Your task to perform on an android device: Open my contact list Image 0: 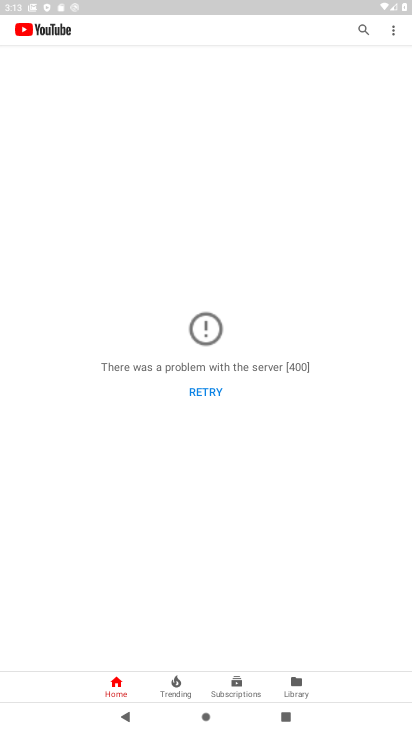
Step 0: press home button
Your task to perform on an android device: Open my contact list Image 1: 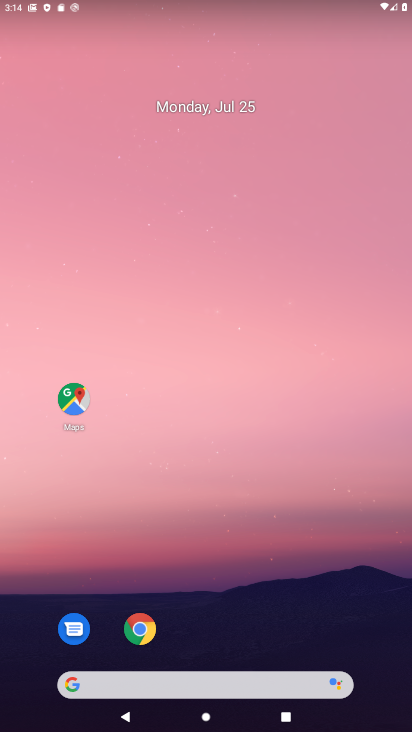
Step 1: drag from (287, 652) to (354, 3)
Your task to perform on an android device: Open my contact list Image 2: 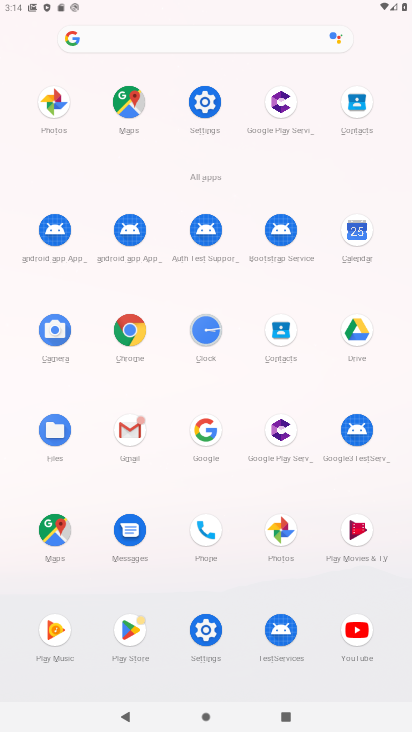
Step 2: click (289, 331)
Your task to perform on an android device: Open my contact list Image 3: 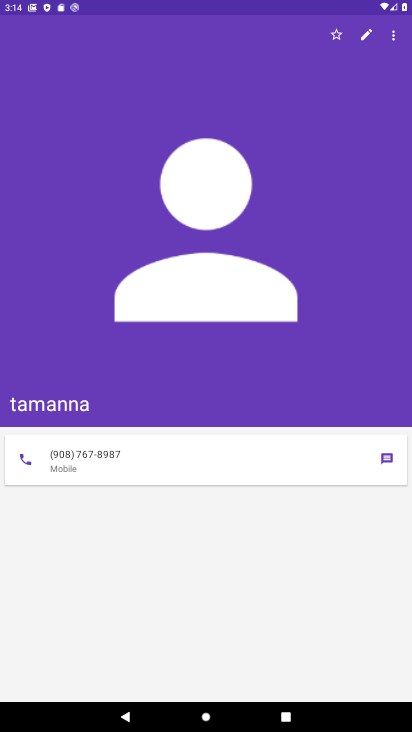
Step 3: press back button
Your task to perform on an android device: Open my contact list Image 4: 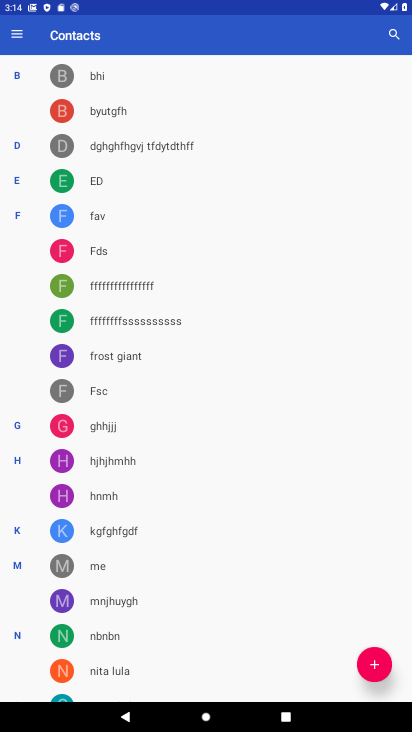
Step 4: click (370, 661)
Your task to perform on an android device: Open my contact list Image 5: 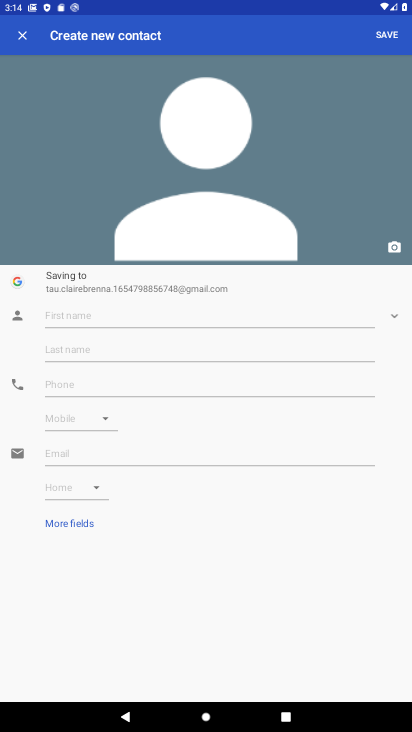
Step 5: type "lily"
Your task to perform on an android device: Open my contact list Image 6: 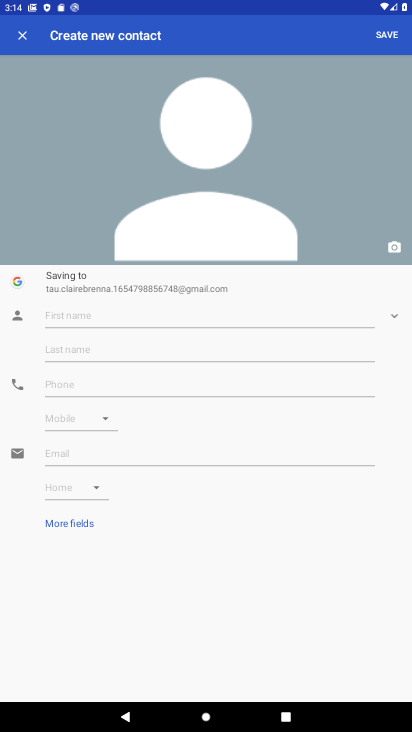
Step 6: click (150, 323)
Your task to perform on an android device: Open my contact list Image 7: 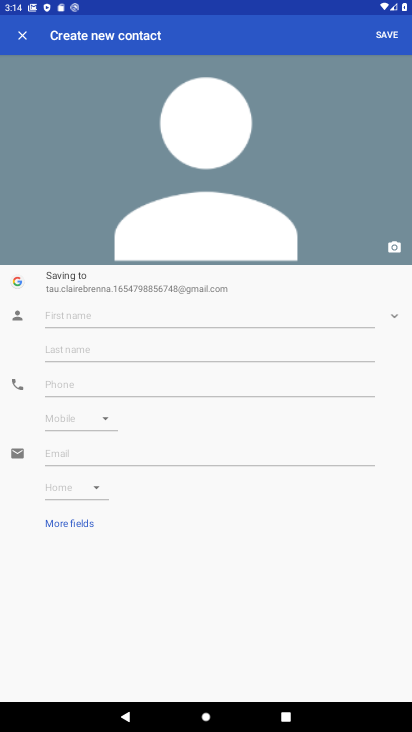
Step 7: click (150, 330)
Your task to perform on an android device: Open my contact list Image 8: 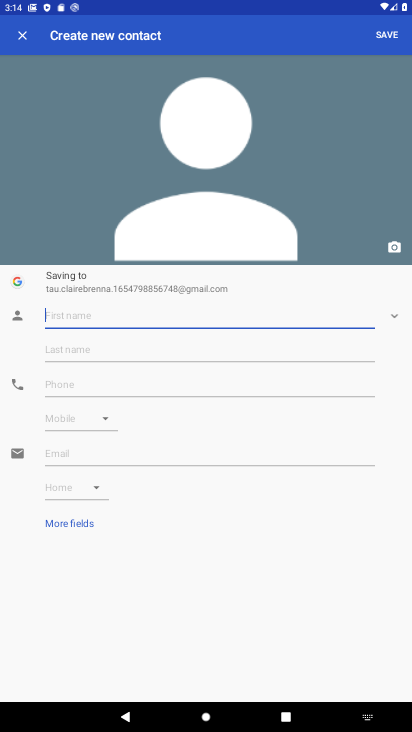
Step 8: type "lily'"
Your task to perform on an android device: Open my contact list Image 9: 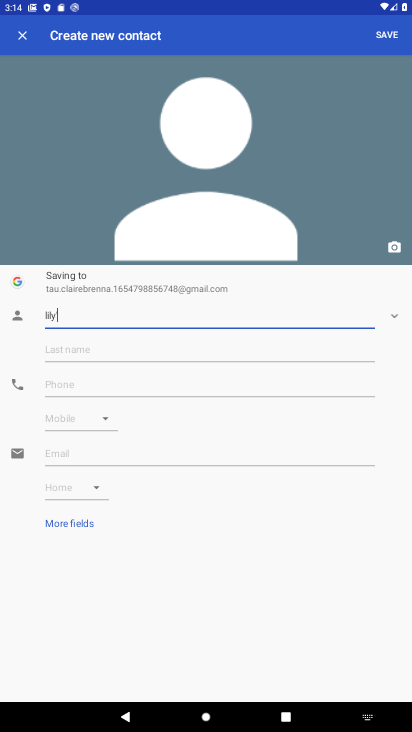
Step 9: click (142, 383)
Your task to perform on an android device: Open my contact list Image 10: 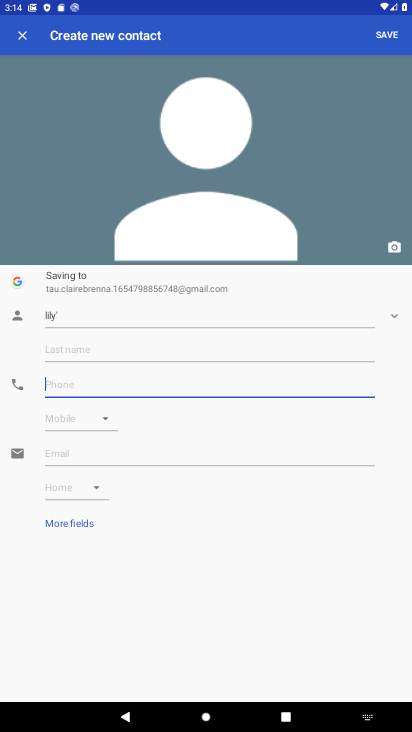
Step 10: type "9897908070"
Your task to perform on an android device: Open my contact list Image 11: 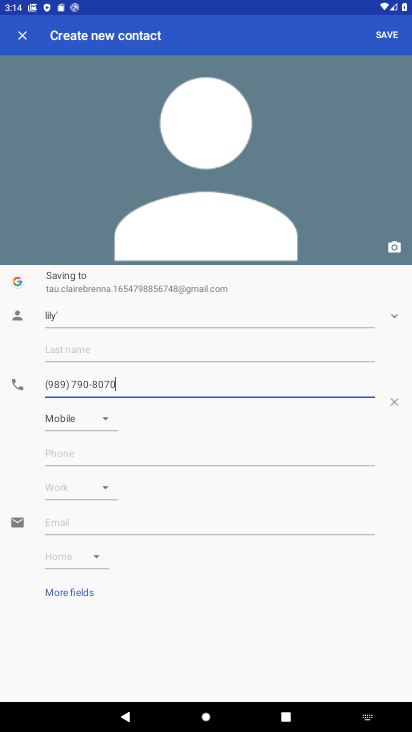
Step 11: click (391, 33)
Your task to perform on an android device: Open my contact list Image 12: 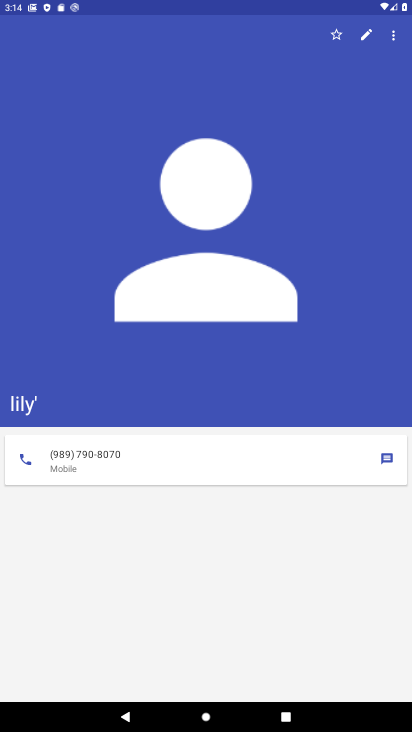
Step 12: task complete